Your task to perform on an android device: Open Maps and search for coffee Image 0: 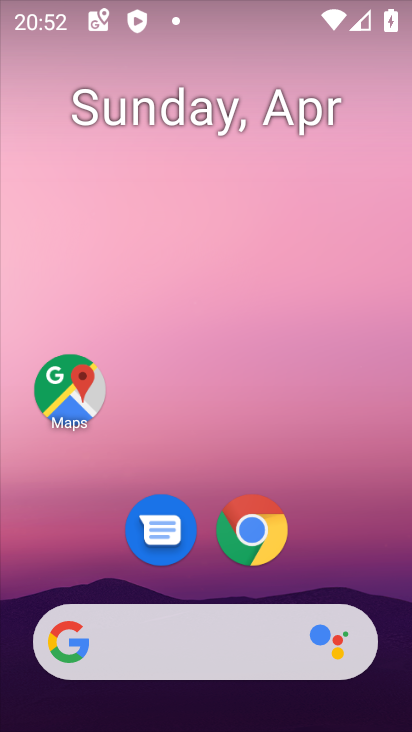
Step 0: click (85, 392)
Your task to perform on an android device: Open Maps and search for coffee Image 1: 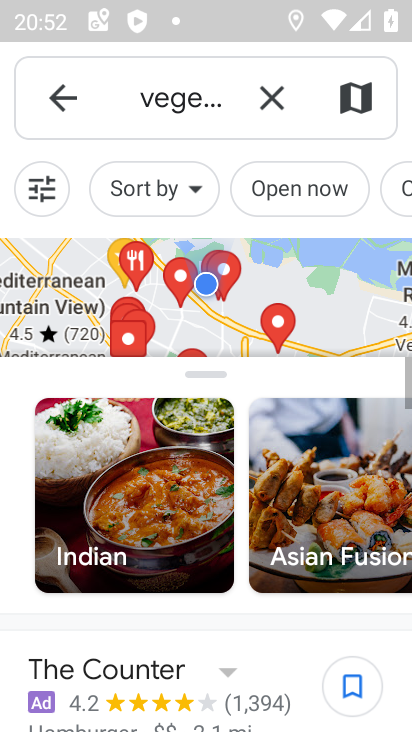
Step 1: click (267, 96)
Your task to perform on an android device: Open Maps and search for coffee Image 2: 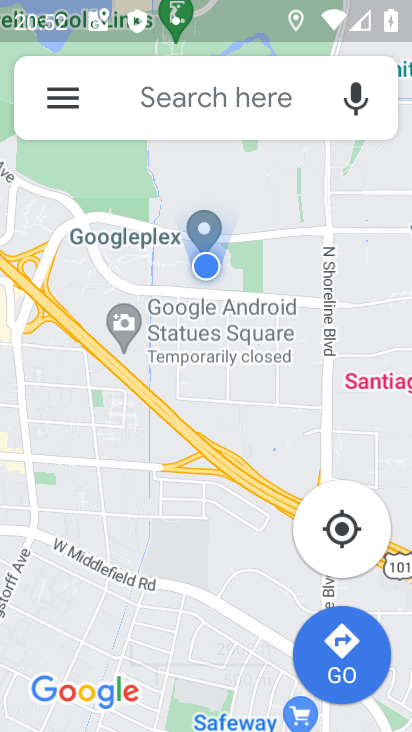
Step 2: click (168, 121)
Your task to perform on an android device: Open Maps and search for coffee Image 3: 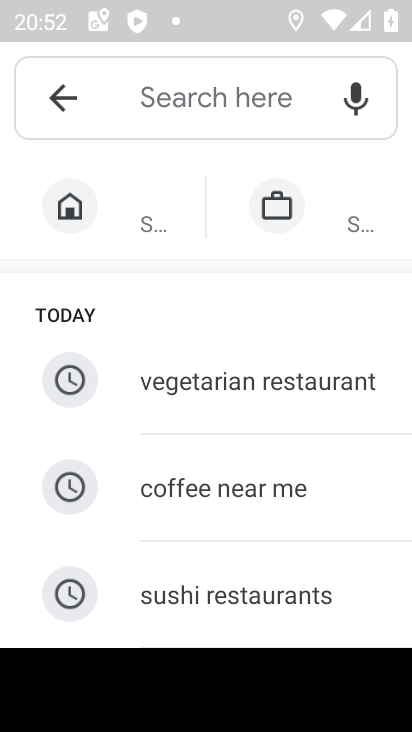
Step 3: type "coffee"
Your task to perform on an android device: Open Maps and search for coffee Image 4: 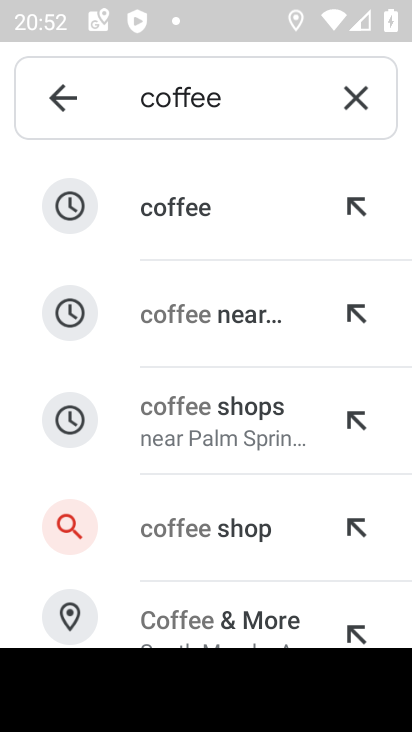
Step 4: click (146, 210)
Your task to perform on an android device: Open Maps and search for coffee Image 5: 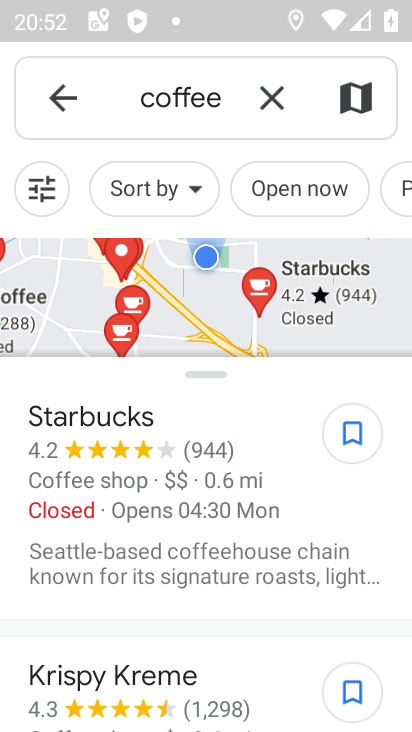
Step 5: task complete